Your task to perform on an android device: turn off notifications in google photos Image 0: 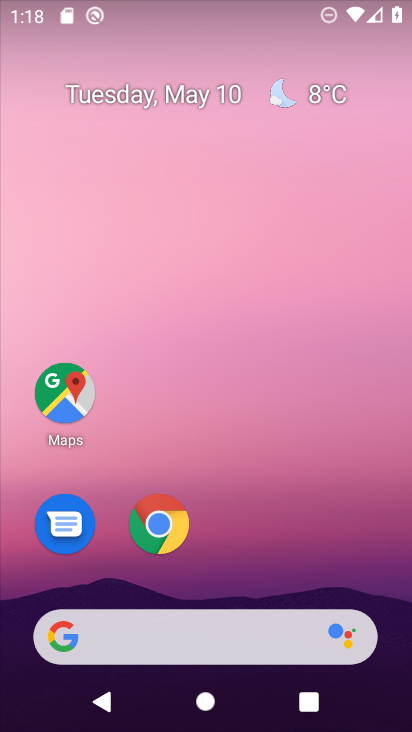
Step 0: drag from (272, 578) to (278, 36)
Your task to perform on an android device: turn off notifications in google photos Image 1: 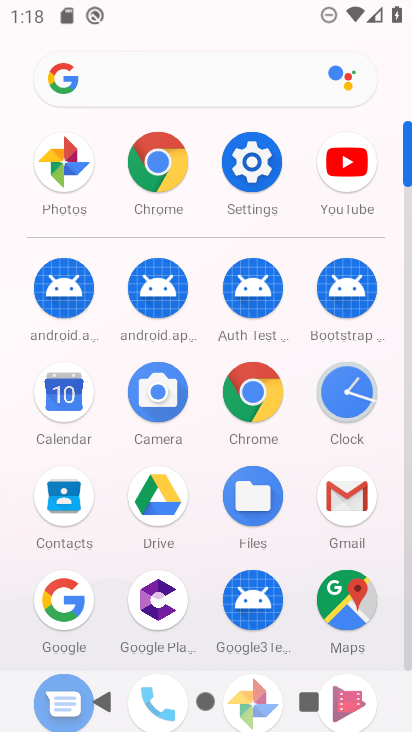
Step 1: click (240, 165)
Your task to perform on an android device: turn off notifications in google photos Image 2: 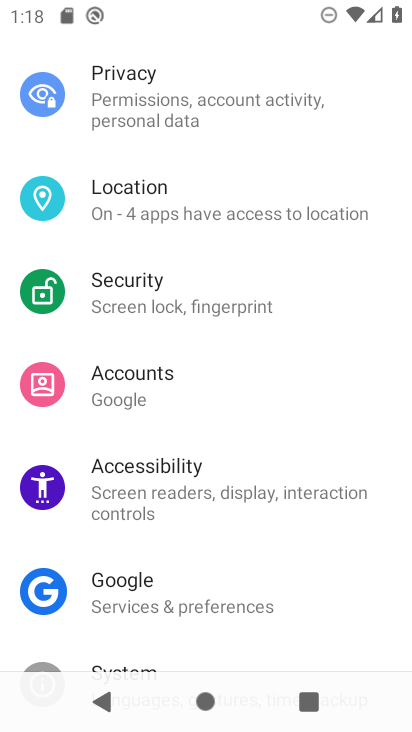
Step 2: drag from (246, 195) to (241, 709)
Your task to perform on an android device: turn off notifications in google photos Image 3: 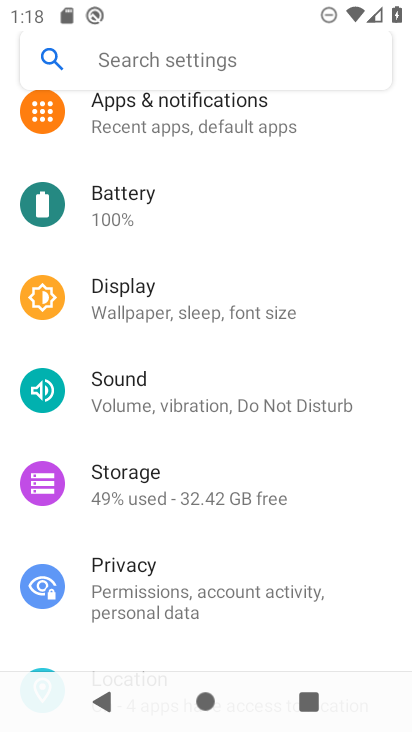
Step 3: click (249, 109)
Your task to perform on an android device: turn off notifications in google photos Image 4: 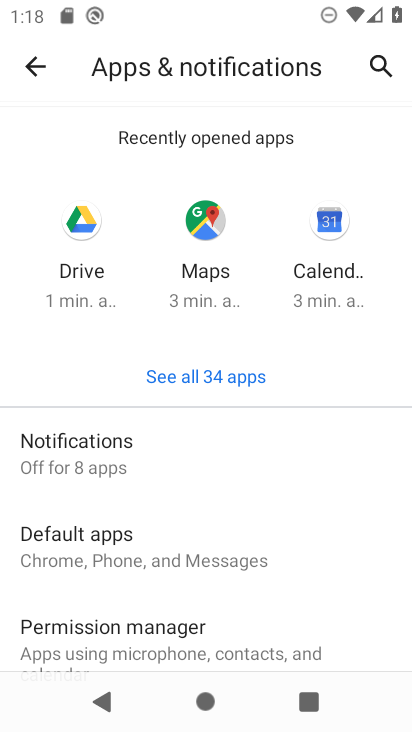
Step 4: click (226, 374)
Your task to perform on an android device: turn off notifications in google photos Image 5: 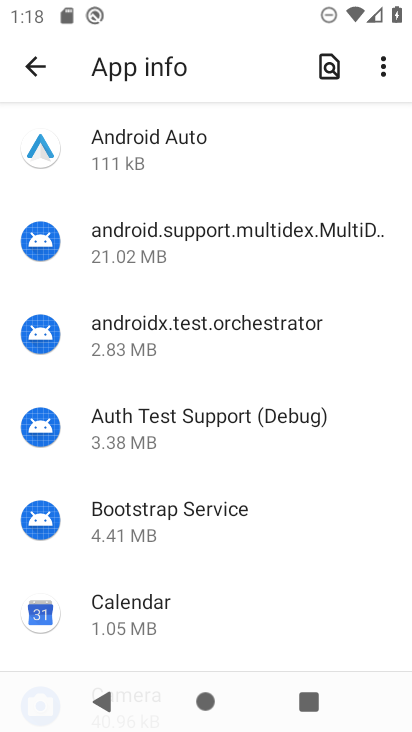
Step 5: drag from (258, 571) to (250, 47)
Your task to perform on an android device: turn off notifications in google photos Image 6: 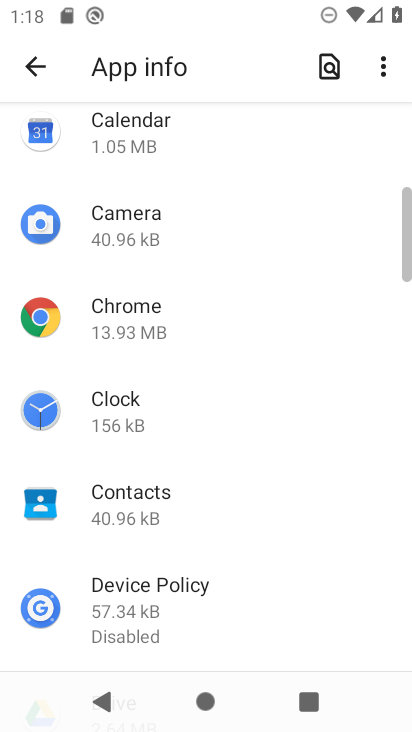
Step 6: drag from (200, 647) to (242, 9)
Your task to perform on an android device: turn off notifications in google photos Image 7: 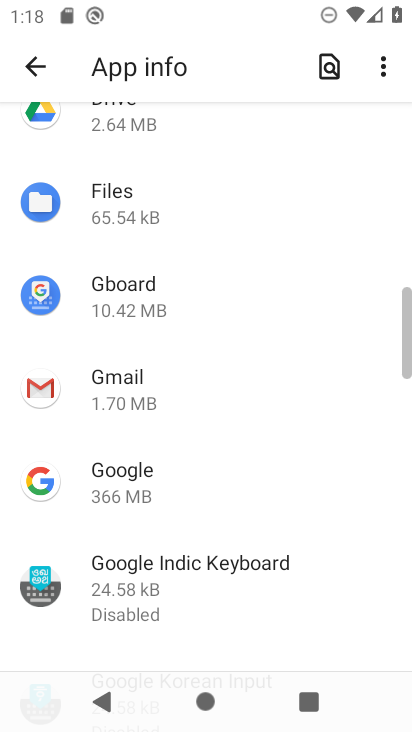
Step 7: drag from (193, 652) to (245, 17)
Your task to perform on an android device: turn off notifications in google photos Image 8: 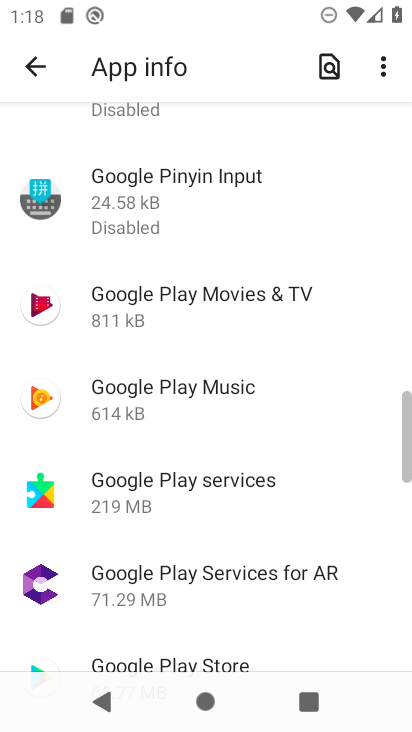
Step 8: drag from (218, 619) to (277, 14)
Your task to perform on an android device: turn off notifications in google photos Image 9: 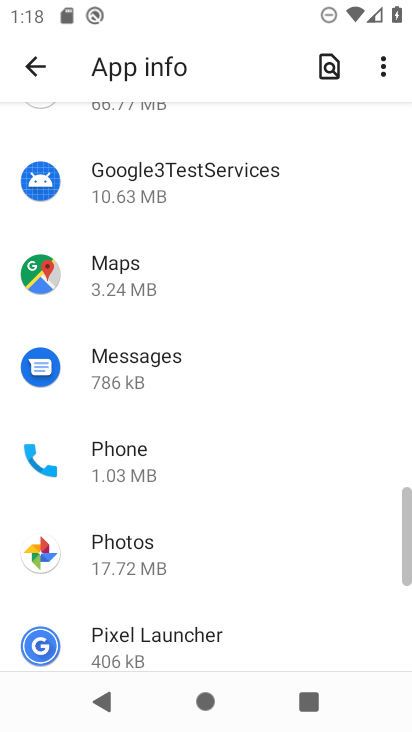
Step 9: click (142, 559)
Your task to perform on an android device: turn off notifications in google photos Image 10: 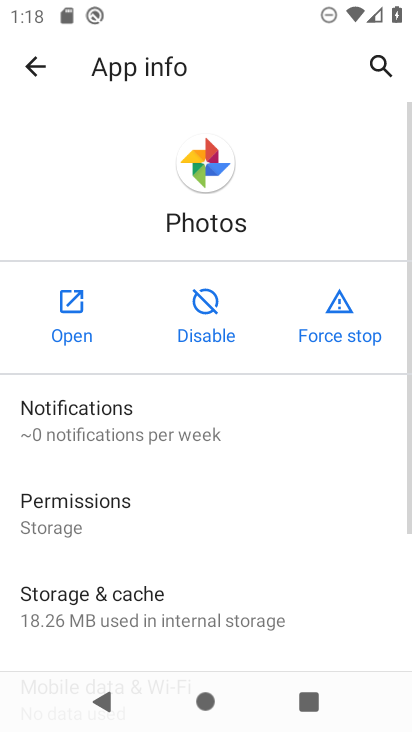
Step 10: click (200, 418)
Your task to perform on an android device: turn off notifications in google photos Image 11: 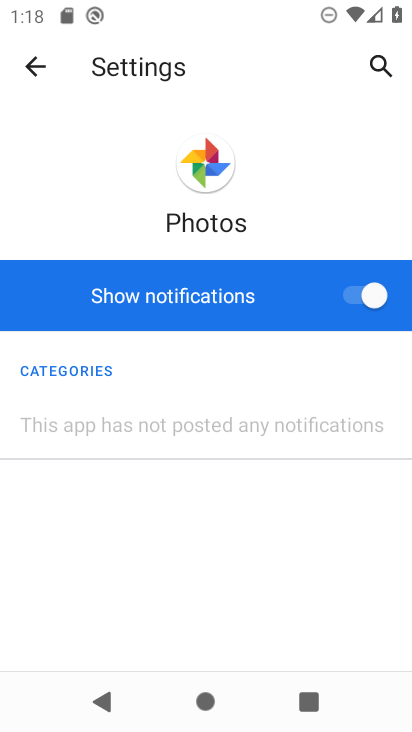
Step 11: click (355, 289)
Your task to perform on an android device: turn off notifications in google photos Image 12: 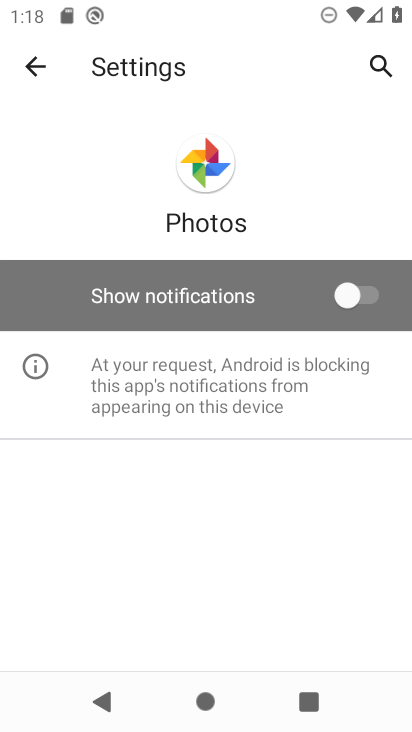
Step 12: task complete